Your task to perform on an android device: turn on improve location accuracy Image 0: 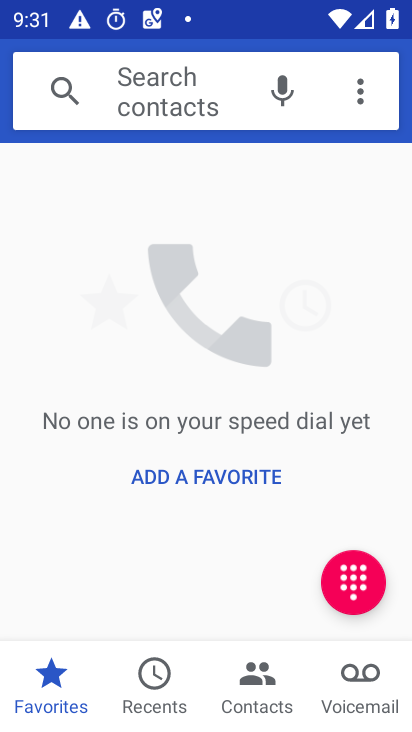
Step 0: press home button
Your task to perform on an android device: turn on improve location accuracy Image 1: 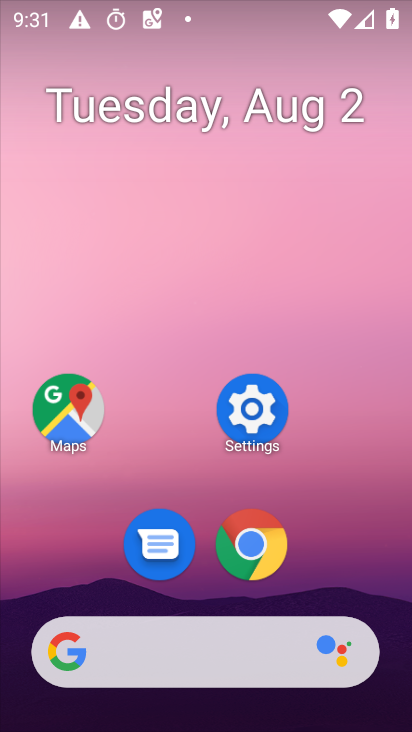
Step 1: click (251, 407)
Your task to perform on an android device: turn on improve location accuracy Image 2: 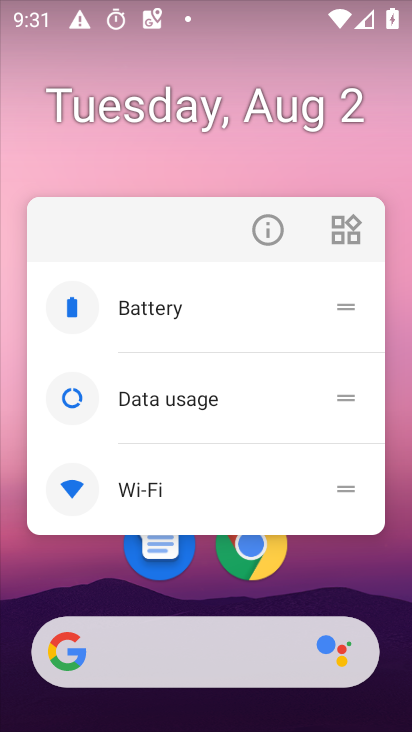
Step 2: click (387, 547)
Your task to perform on an android device: turn on improve location accuracy Image 3: 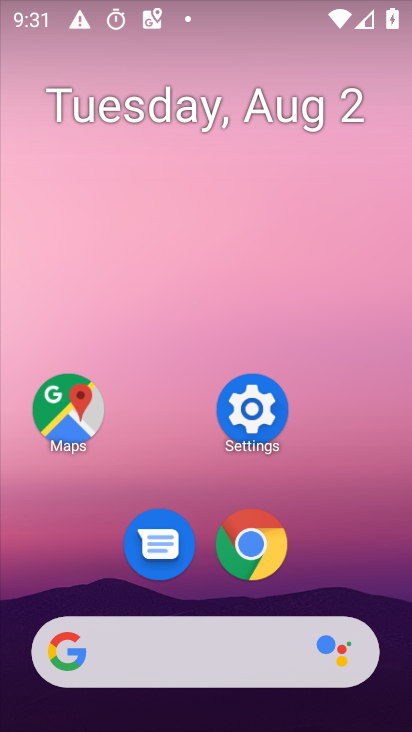
Step 3: click (255, 402)
Your task to perform on an android device: turn on improve location accuracy Image 4: 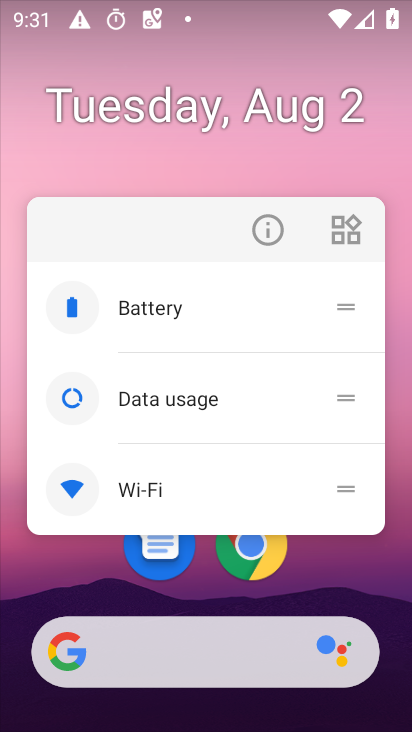
Step 4: click (384, 550)
Your task to perform on an android device: turn on improve location accuracy Image 5: 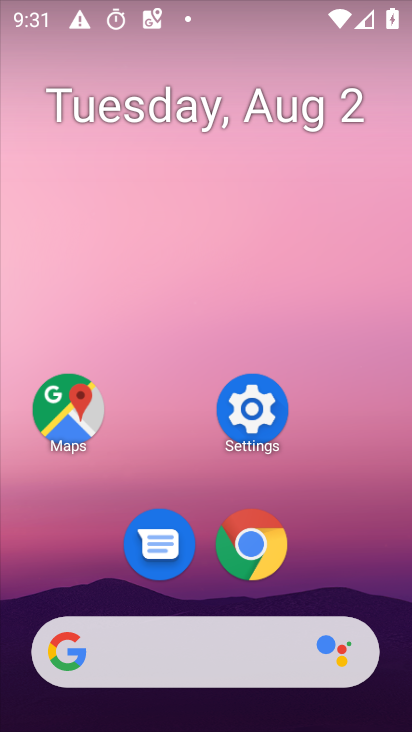
Step 5: click (260, 402)
Your task to perform on an android device: turn on improve location accuracy Image 6: 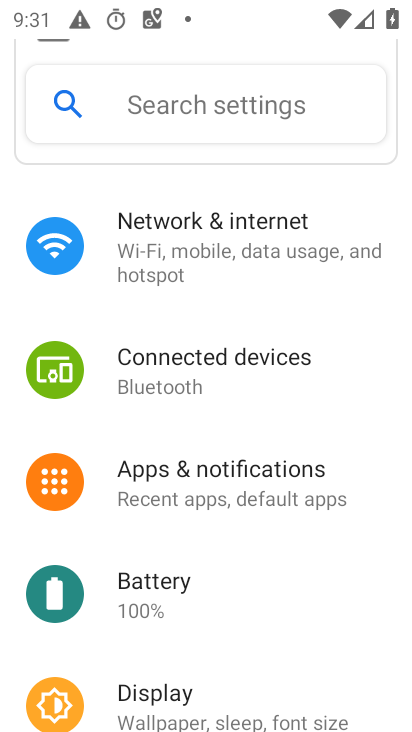
Step 6: drag from (224, 644) to (328, 240)
Your task to perform on an android device: turn on improve location accuracy Image 7: 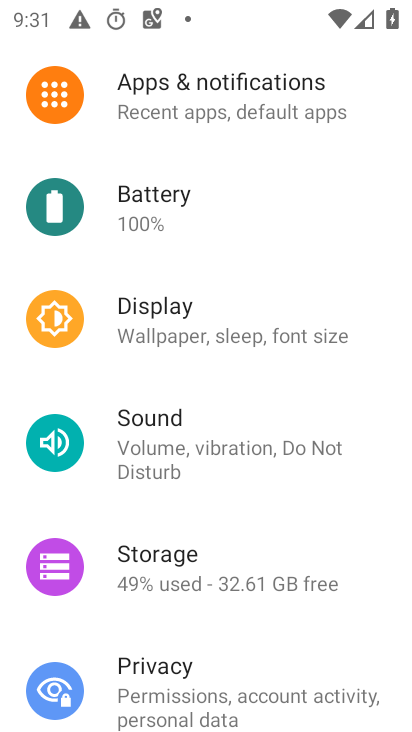
Step 7: drag from (225, 650) to (351, 181)
Your task to perform on an android device: turn on improve location accuracy Image 8: 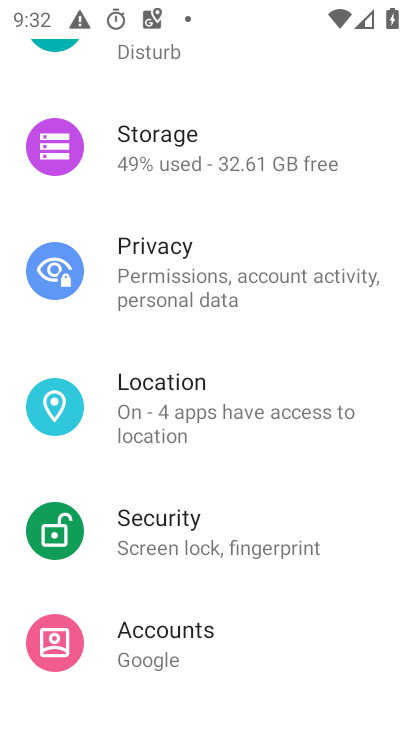
Step 8: click (199, 411)
Your task to perform on an android device: turn on improve location accuracy Image 9: 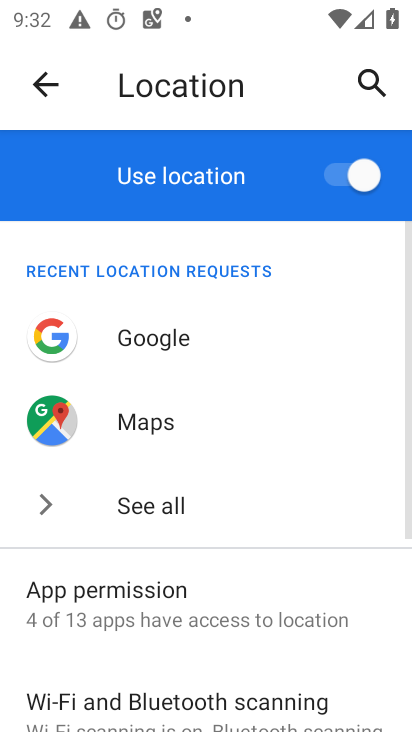
Step 9: drag from (194, 643) to (327, 282)
Your task to perform on an android device: turn on improve location accuracy Image 10: 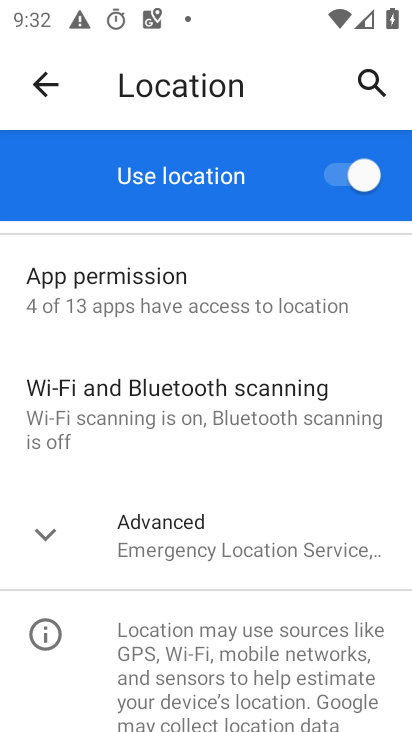
Step 10: click (164, 549)
Your task to perform on an android device: turn on improve location accuracy Image 11: 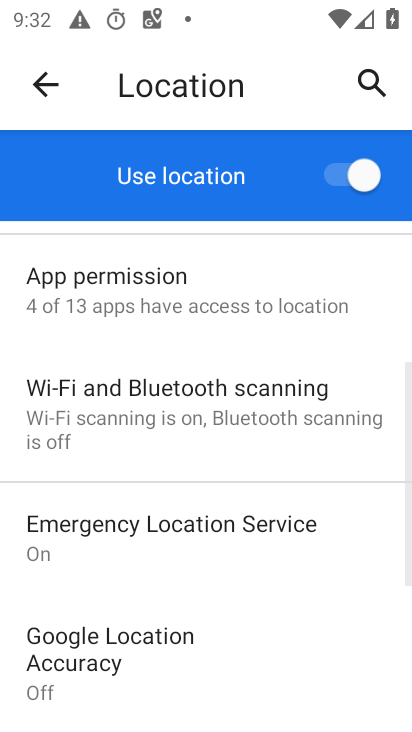
Step 11: drag from (231, 651) to (318, 411)
Your task to perform on an android device: turn on improve location accuracy Image 12: 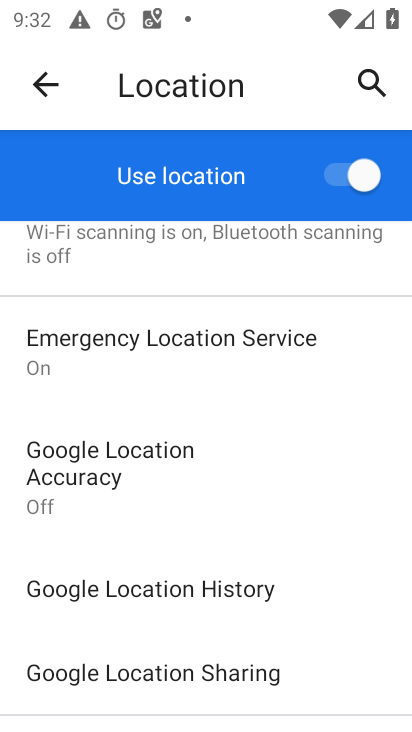
Step 12: click (102, 479)
Your task to perform on an android device: turn on improve location accuracy Image 13: 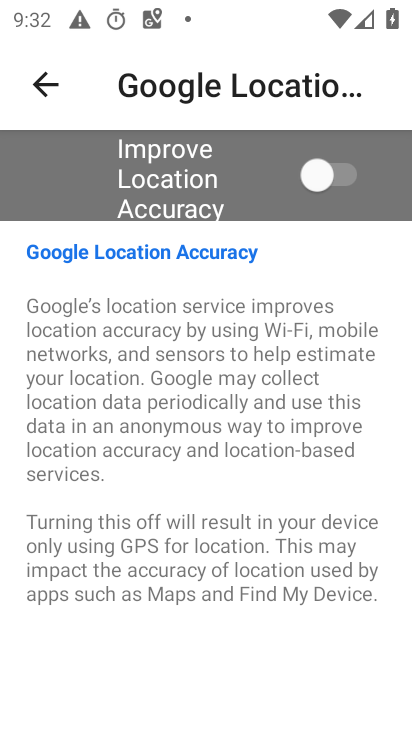
Step 13: click (343, 180)
Your task to perform on an android device: turn on improve location accuracy Image 14: 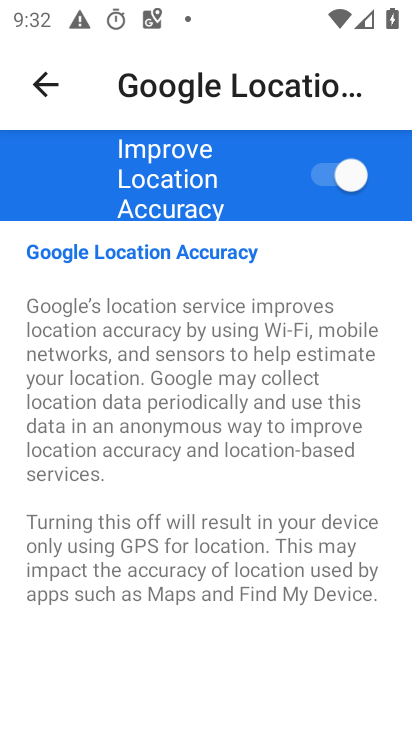
Step 14: task complete